Your task to perform on an android device: Open calendar and show me the third week of next month Image 0: 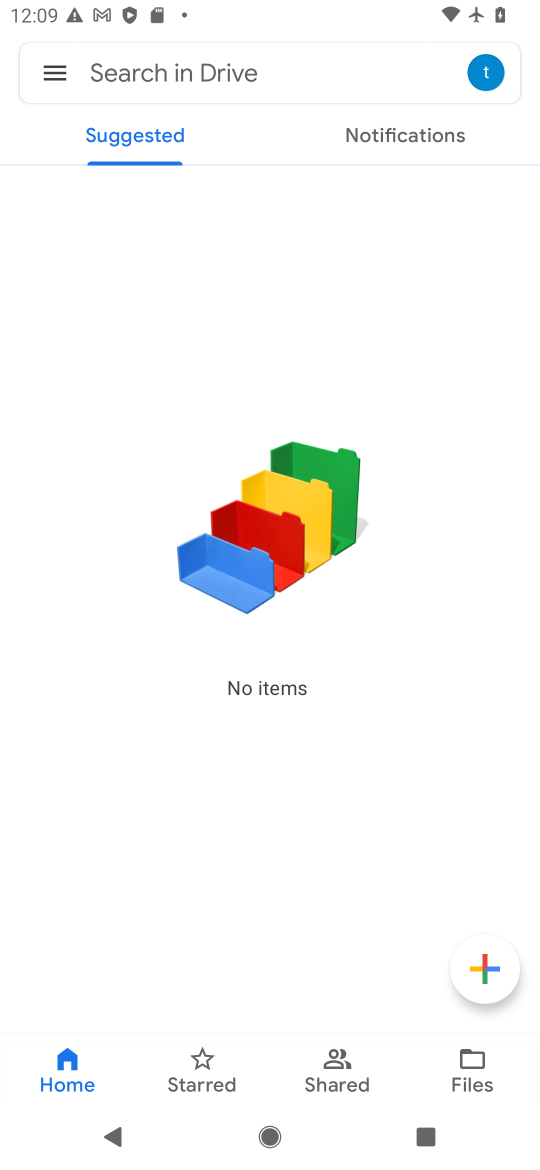
Step 0: press home button
Your task to perform on an android device: Open calendar and show me the third week of next month Image 1: 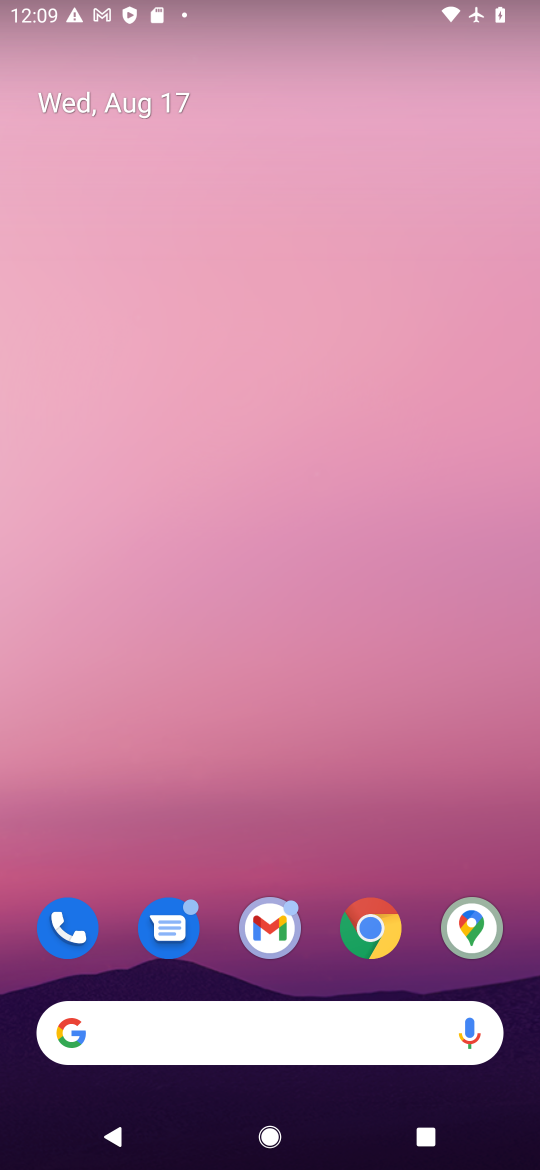
Step 1: drag from (316, 767) to (318, 173)
Your task to perform on an android device: Open calendar and show me the third week of next month Image 2: 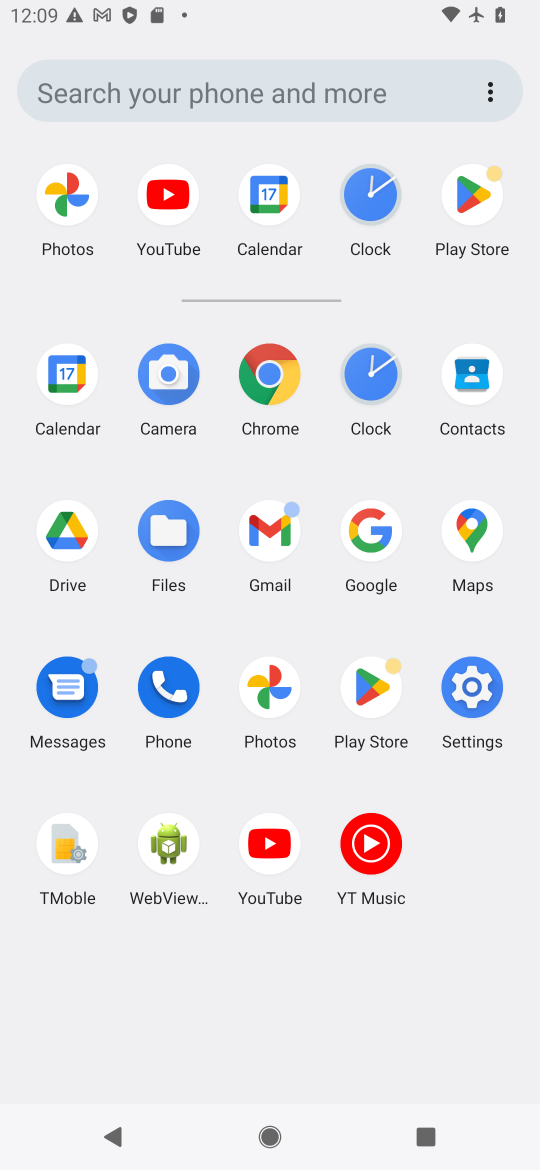
Step 2: click (85, 391)
Your task to perform on an android device: Open calendar and show me the third week of next month Image 3: 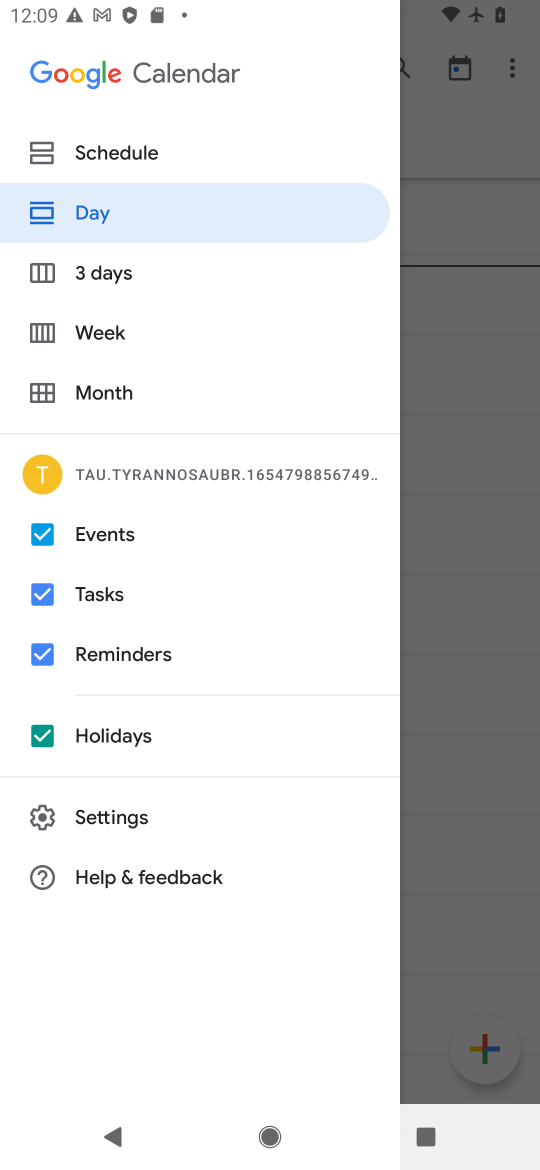
Step 3: click (133, 165)
Your task to perform on an android device: Open calendar and show me the third week of next month Image 4: 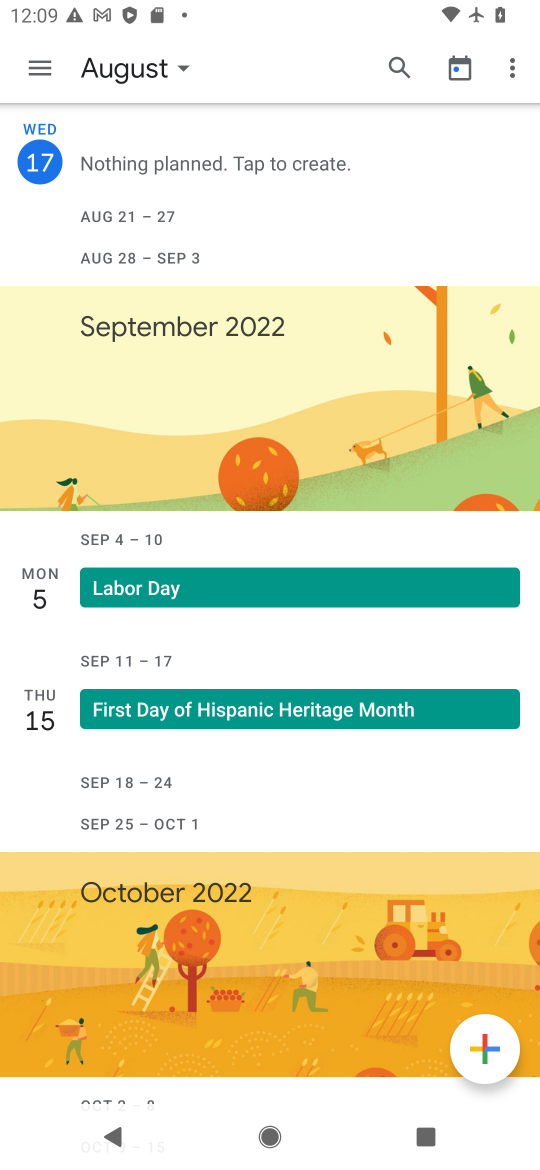
Step 4: click (184, 81)
Your task to perform on an android device: Open calendar and show me the third week of next month Image 5: 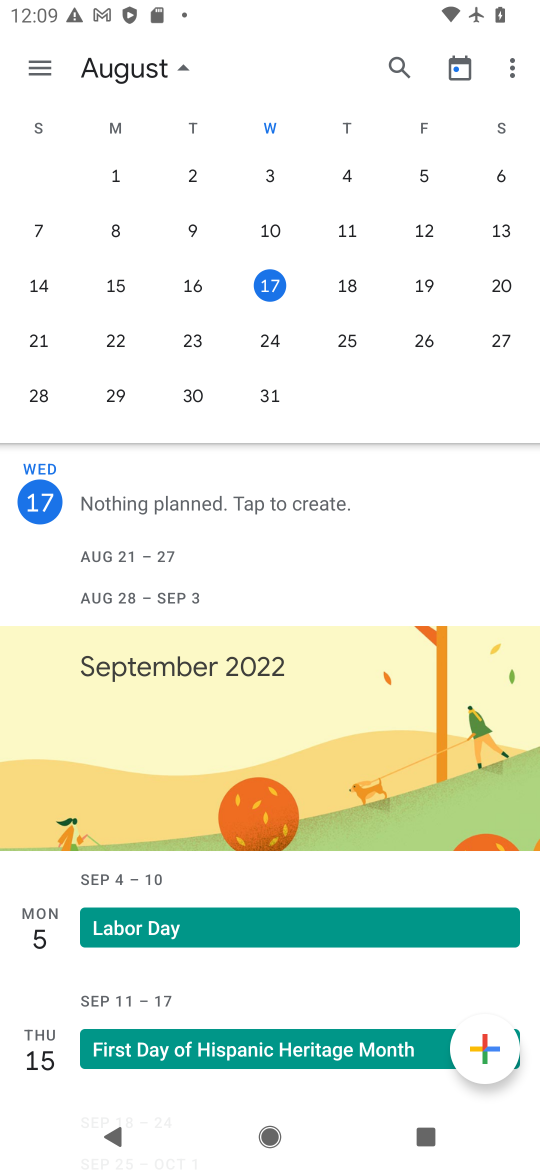
Step 5: drag from (442, 228) to (35, 195)
Your task to perform on an android device: Open calendar and show me the third week of next month Image 6: 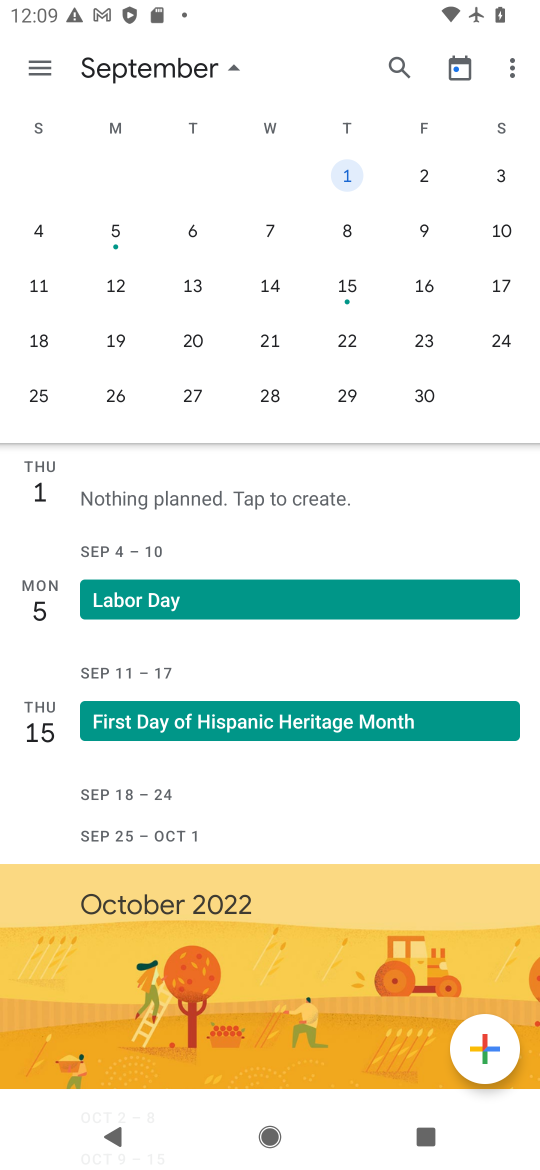
Step 6: click (44, 282)
Your task to perform on an android device: Open calendar and show me the third week of next month Image 7: 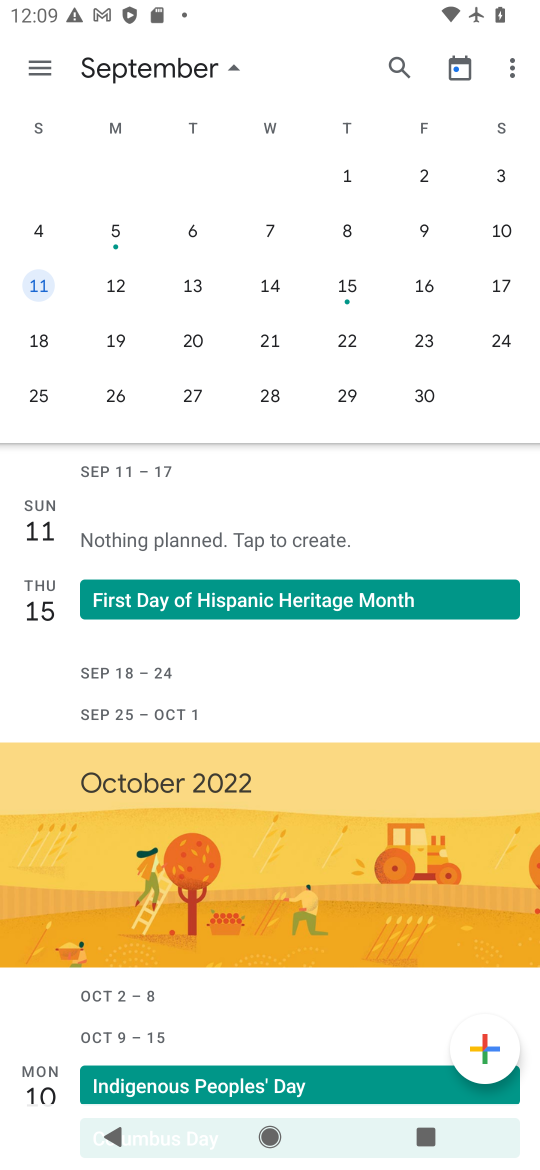
Step 7: task complete